Your task to perform on an android device: open chrome privacy settings Image 0: 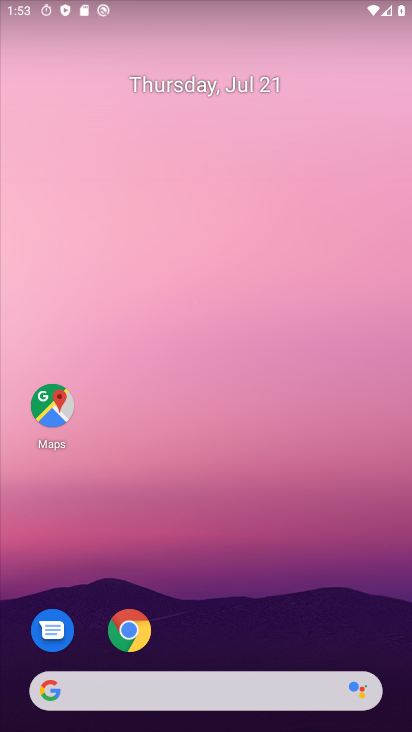
Step 0: click (131, 634)
Your task to perform on an android device: open chrome privacy settings Image 1: 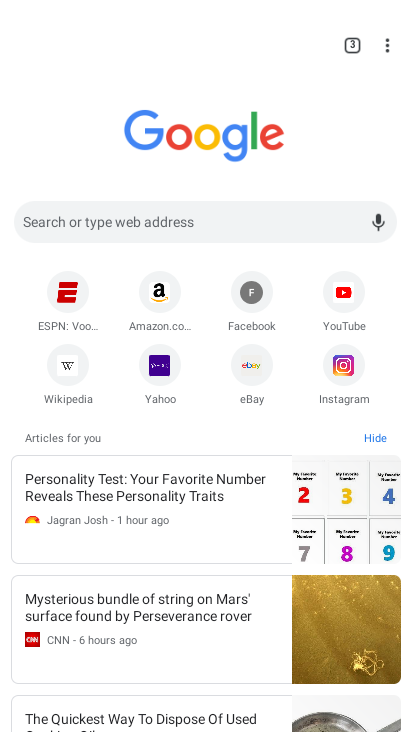
Step 1: click (385, 51)
Your task to perform on an android device: open chrome privacy settings Image 2: 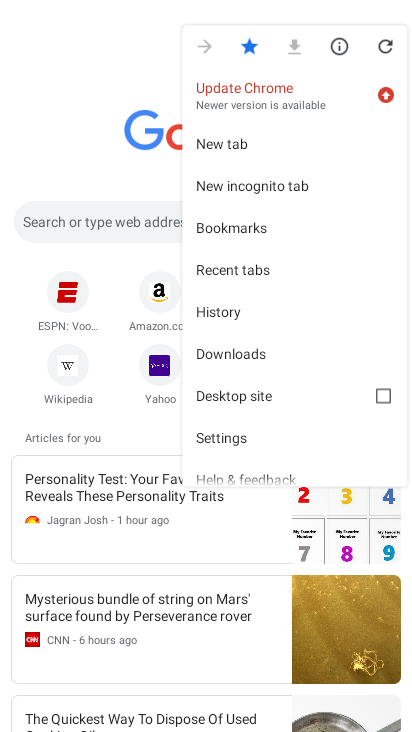
Step 2: click (232, 435)
Your task to perform on an android device: open chrome privacy settings Image 3: 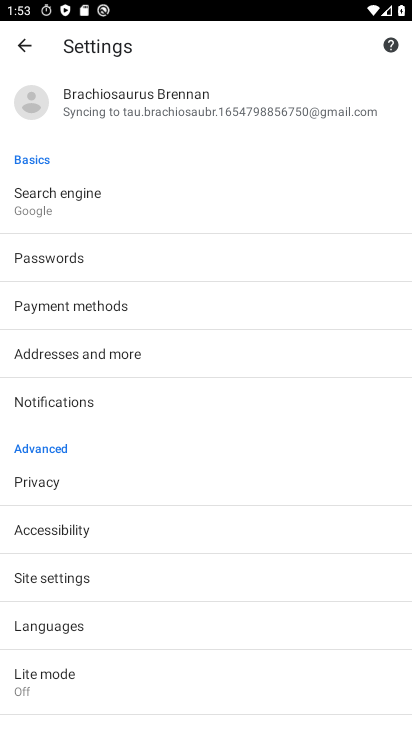
Step 3: click (68, 486)
Your task to perform on an android device: open chrome privacy settings Image 4: 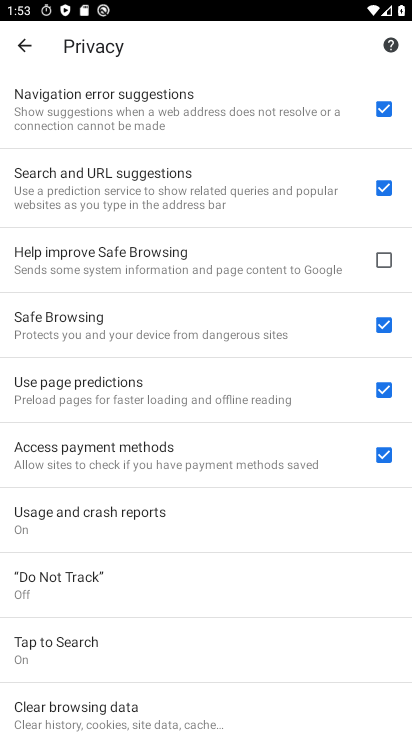
Step 4: task complete